Your task to perform on an android device: Go to Amazon Image 0: 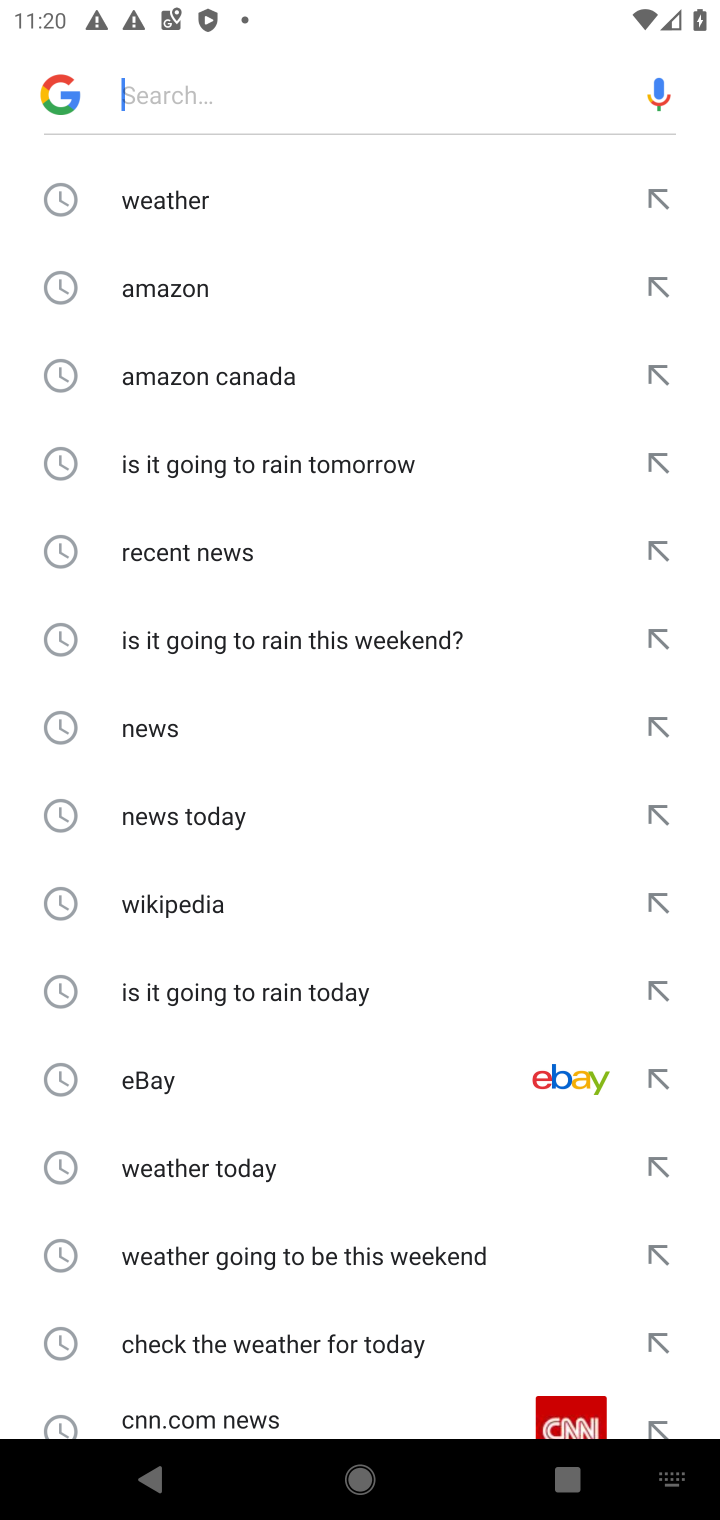
Step 0: press home button
Your task to perform on an android device: Go to Amazon Image 1: 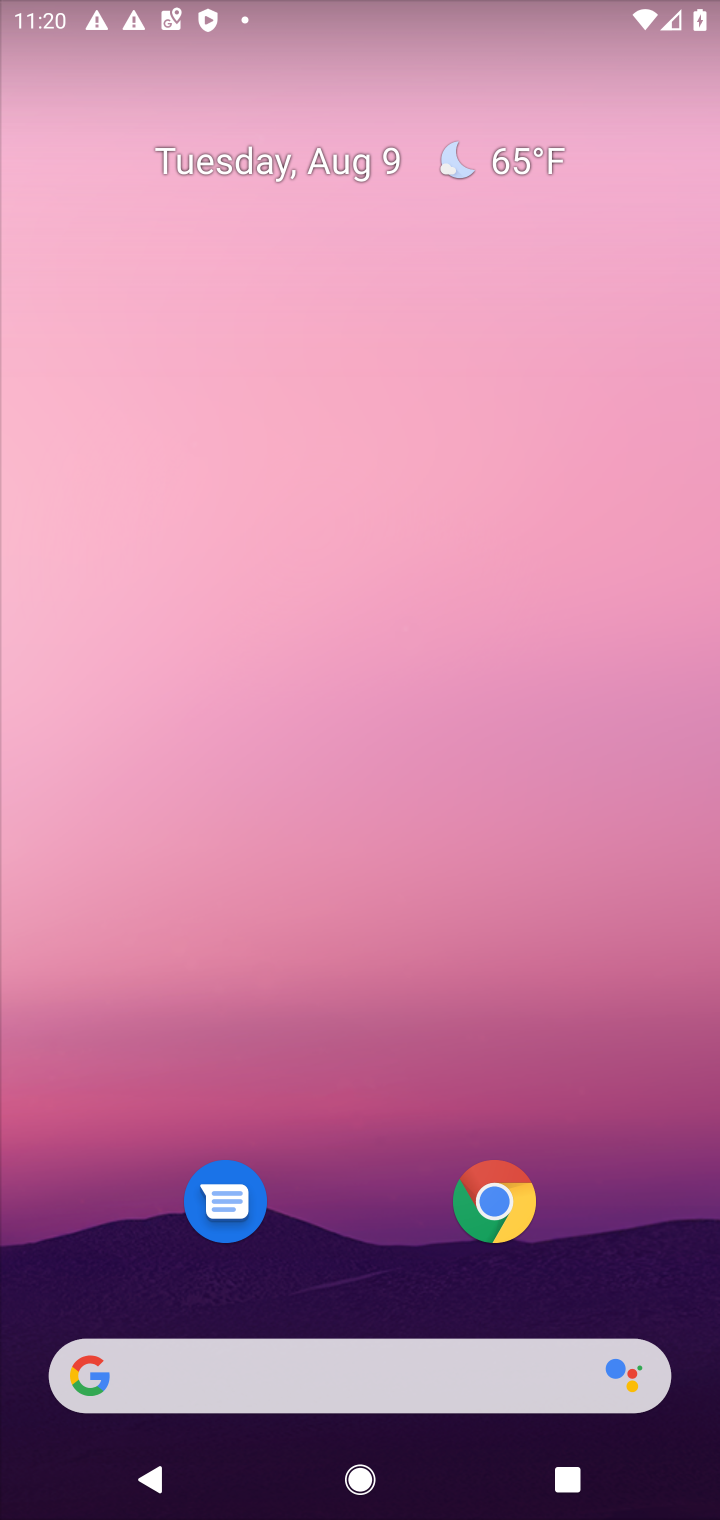
Step 1: drag from (376, 1012) to (465, 203)
Your task to perform on an android device: Go to Amazon Image 2: 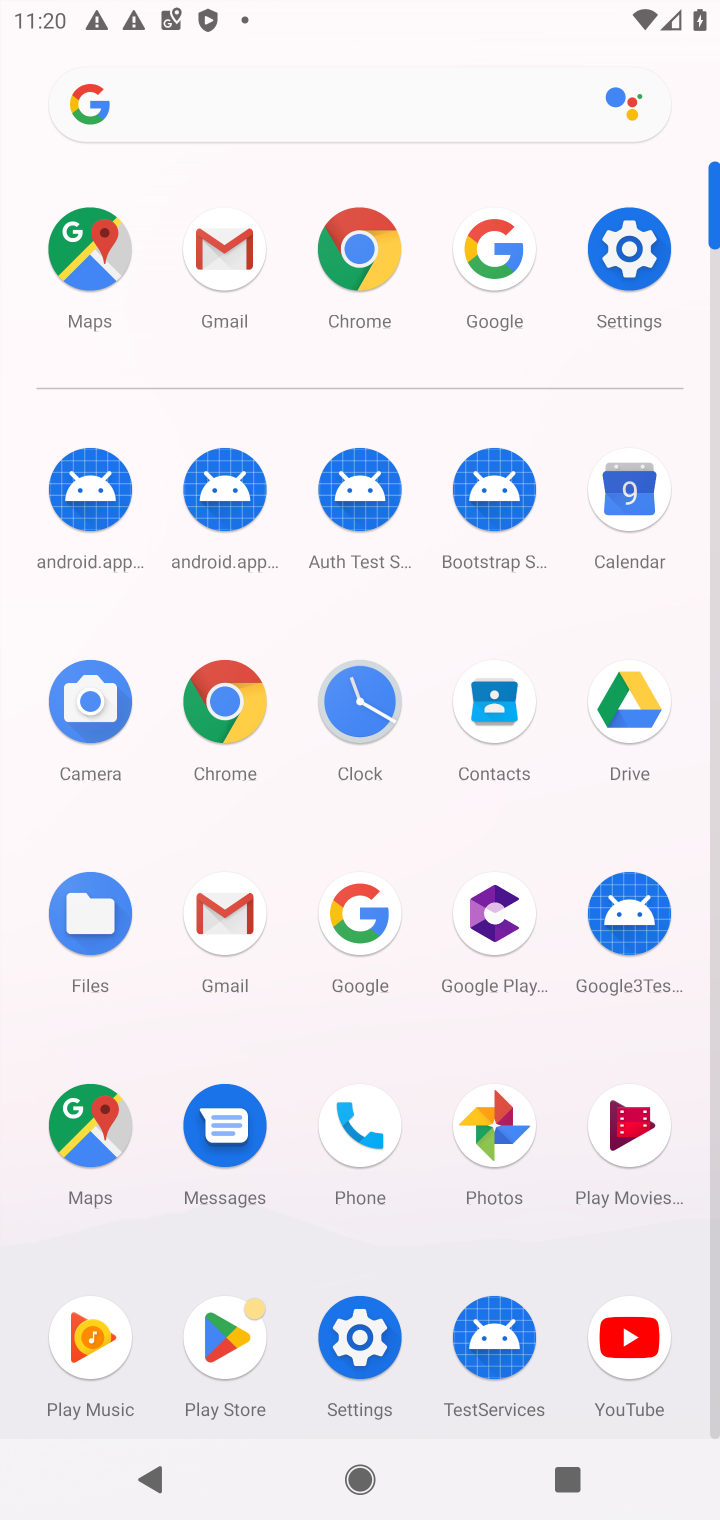
Step 2: click (342, 883)
Your task to perform on an android device: Go to Amazon Image 3: 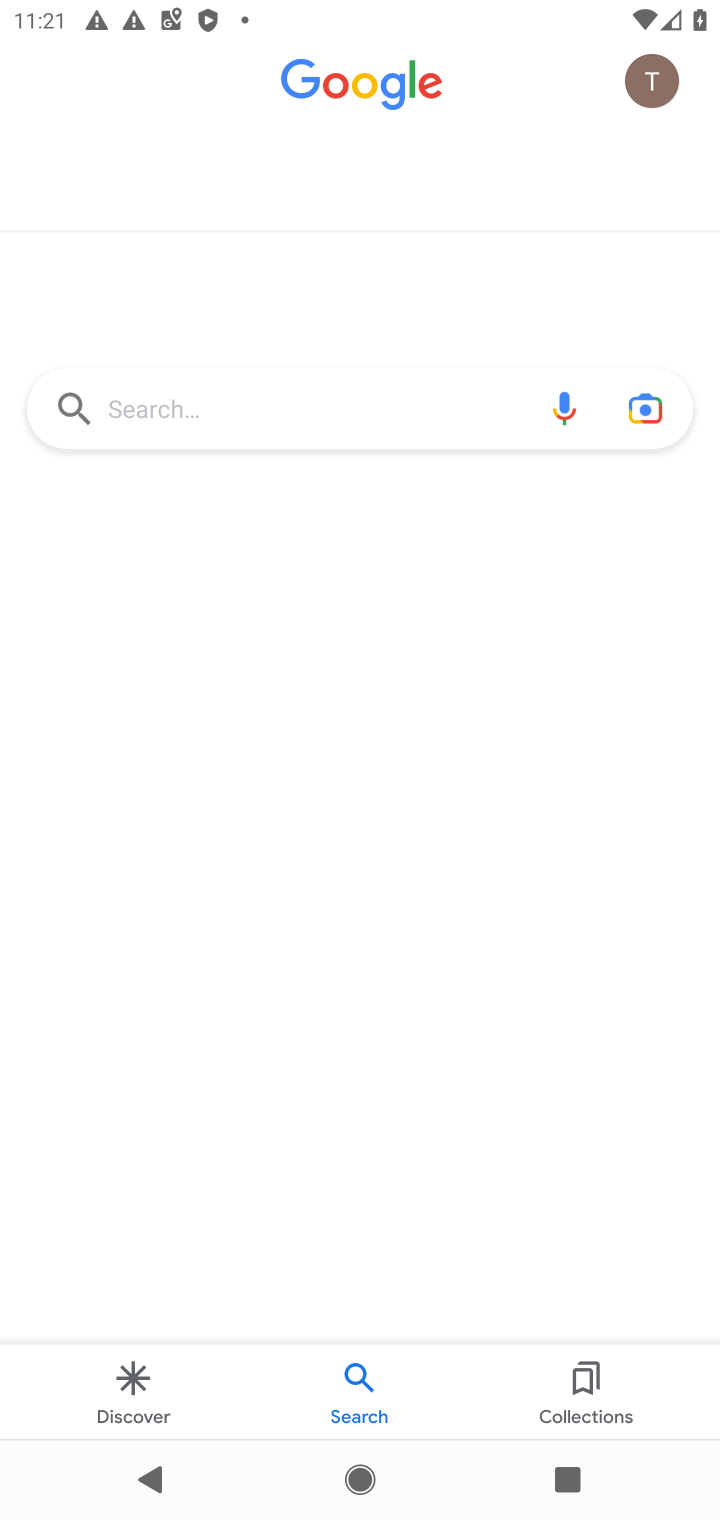
Step 3: click (149, 393)
Your task to perform on an android device: Go to Amazon Image 4: 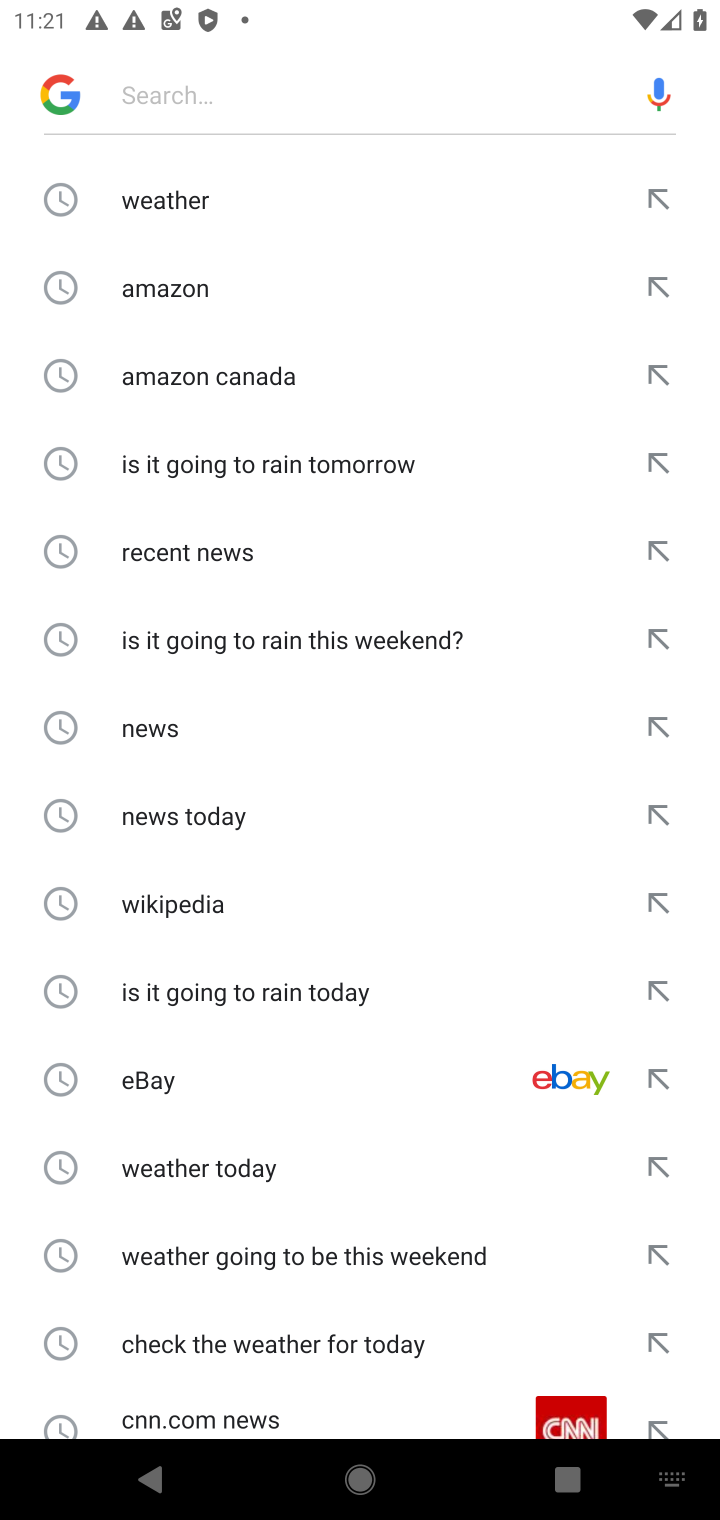
Step 4: type "Amazon"
Your task to perform on an android device: Go to Amazon Image 5: 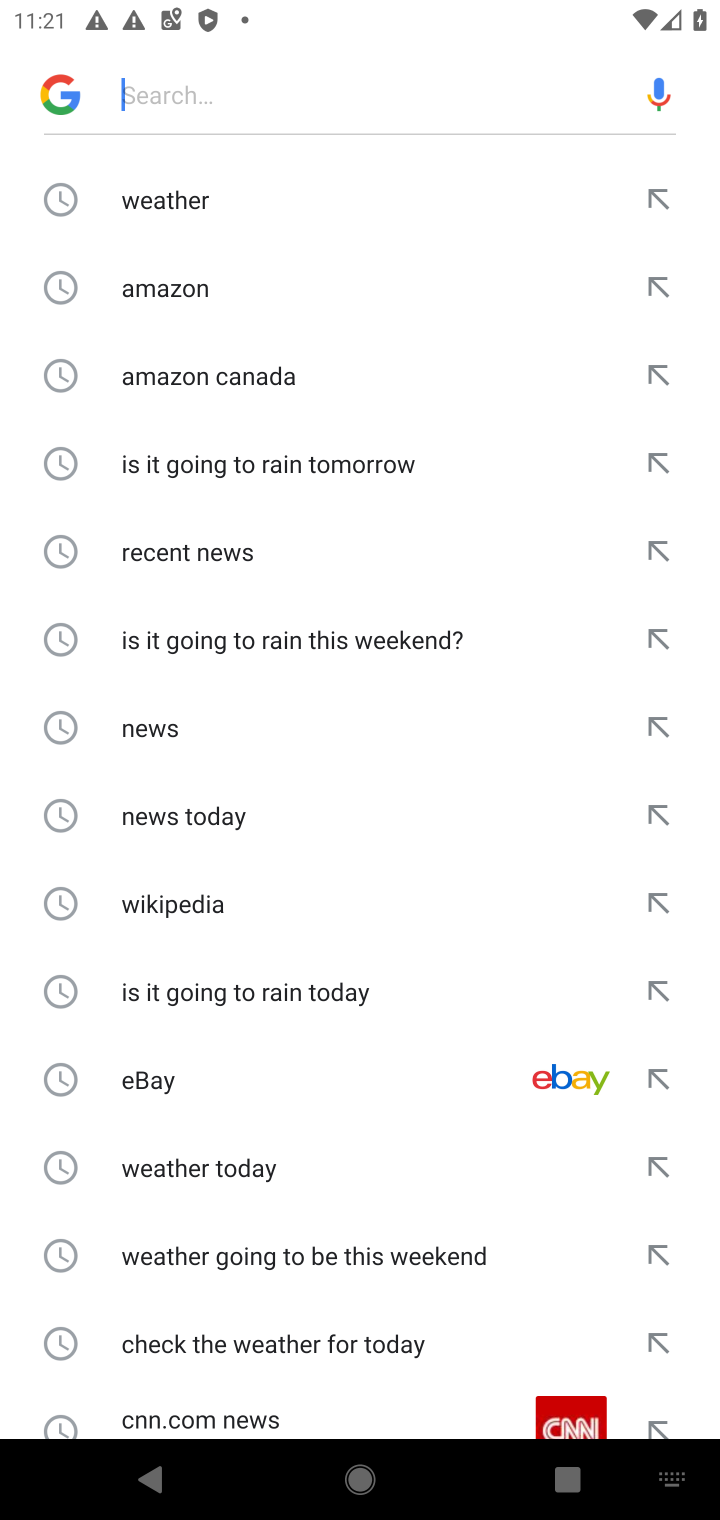
Step 5: click (173, 88)
Your task to perform on an android device: Go to Amazon Image 6: 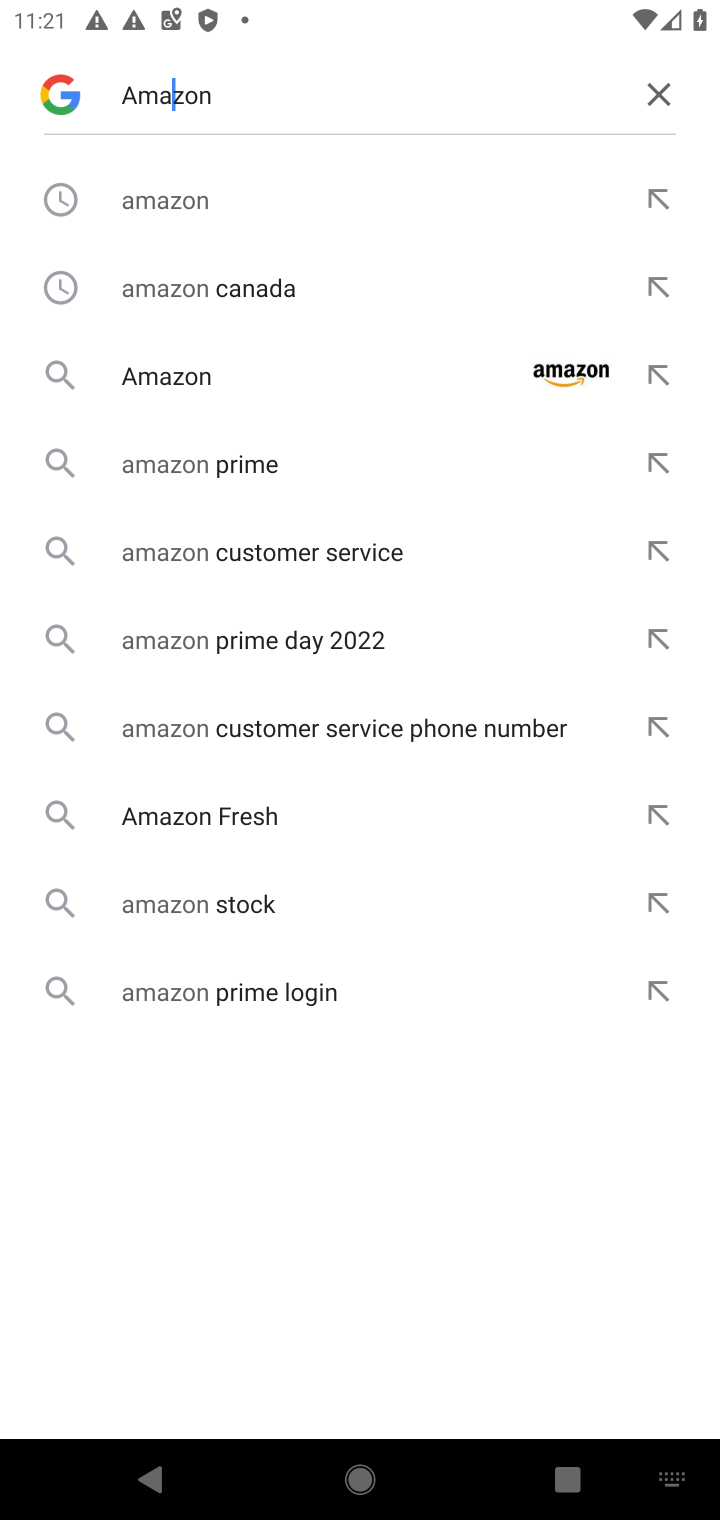
Step 6: press enter
Your task to perform on an android device: Go to Amazon Image 7: 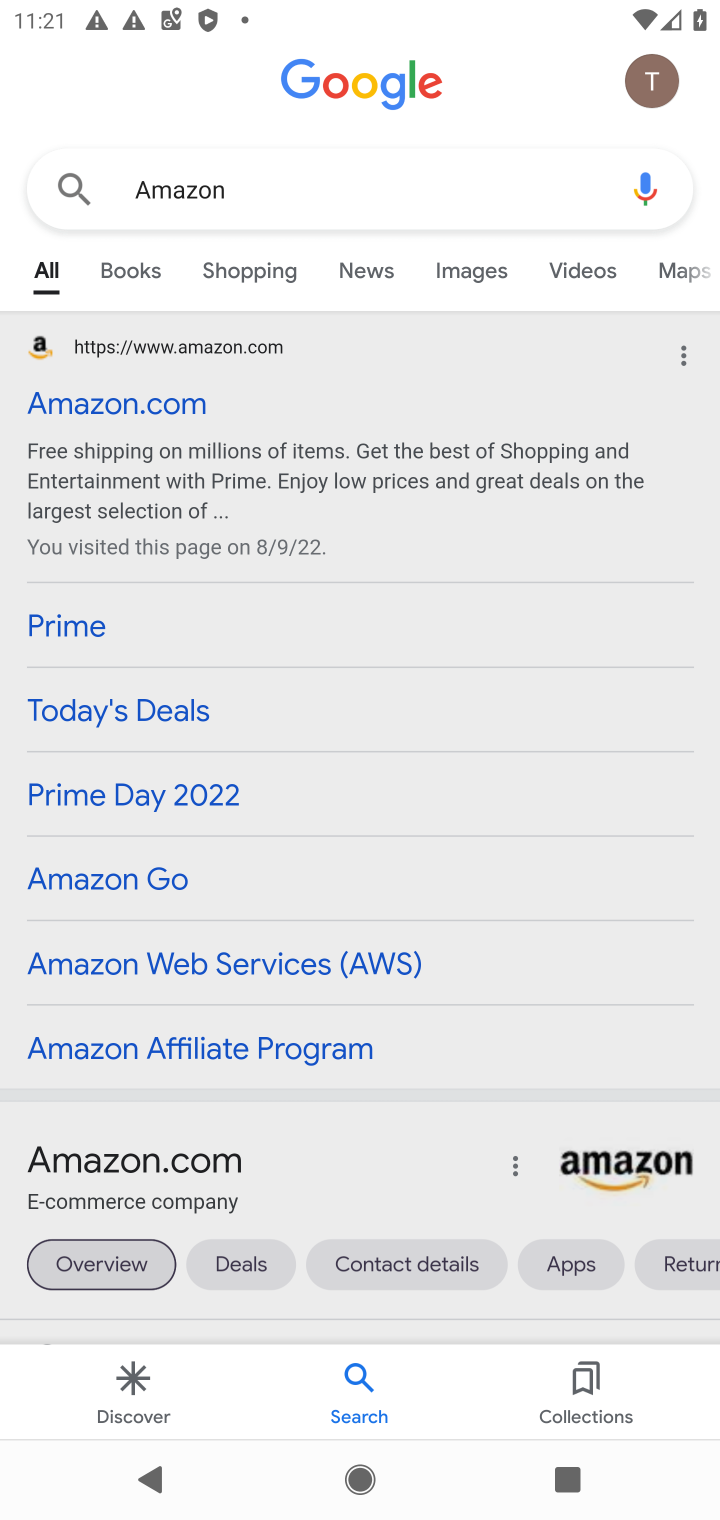
Step 7: click (135, 397)
Your task to perform on an android device: Go to Amazon Image 8: 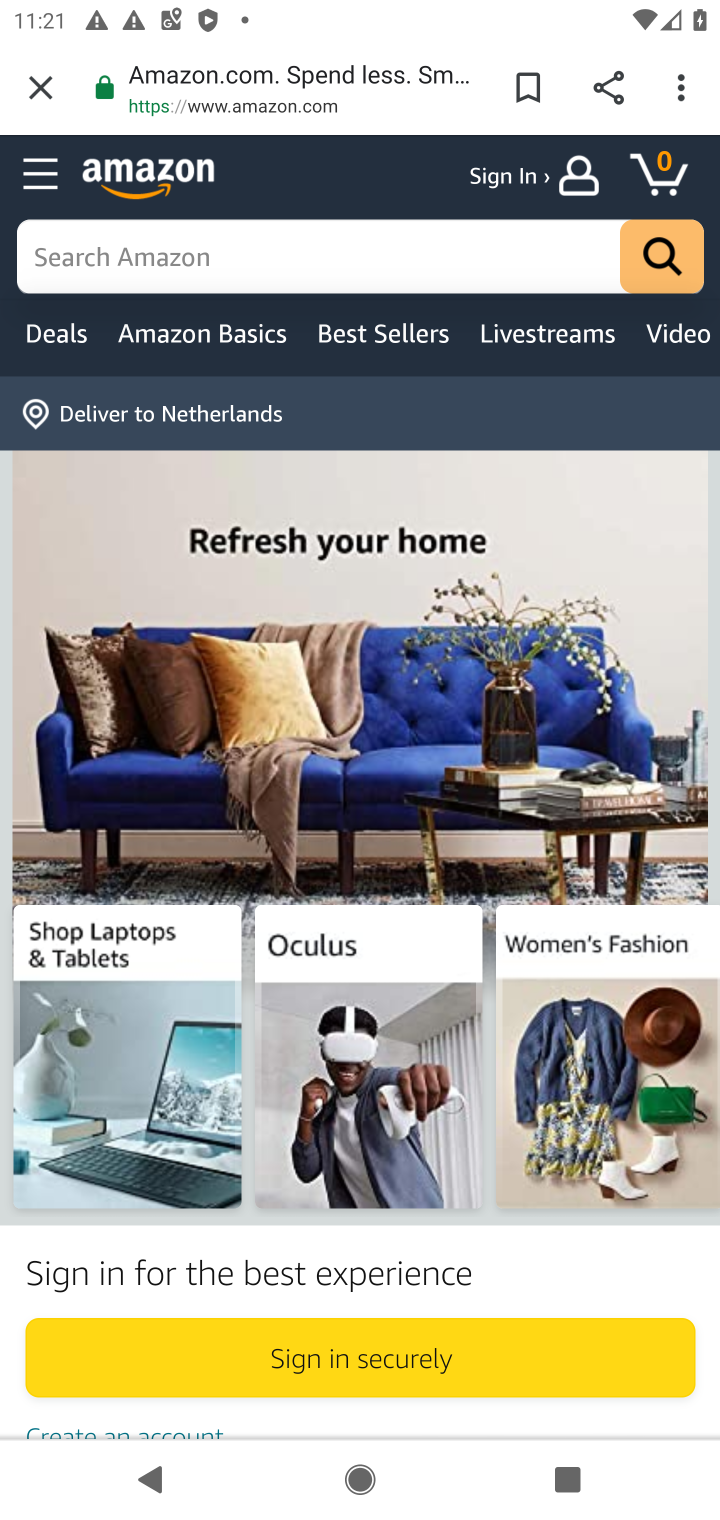
Step 8: task complete